Your task to perform on an android device: Open eBay Image 0: 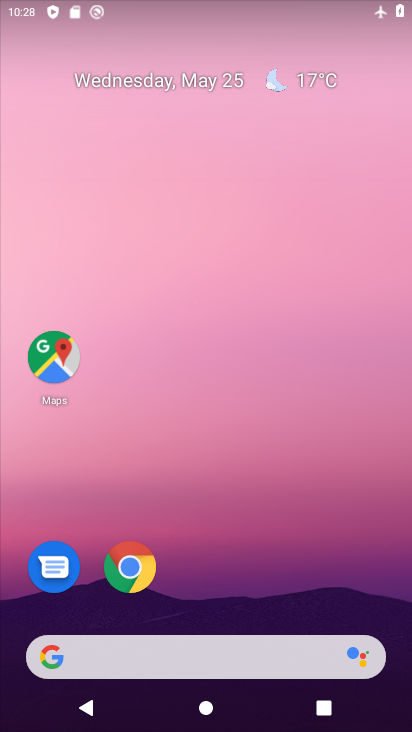
Step 0: drag from (348, 610) to (273, 74)
Your task to perform on an android device: Open eBay Image 1: 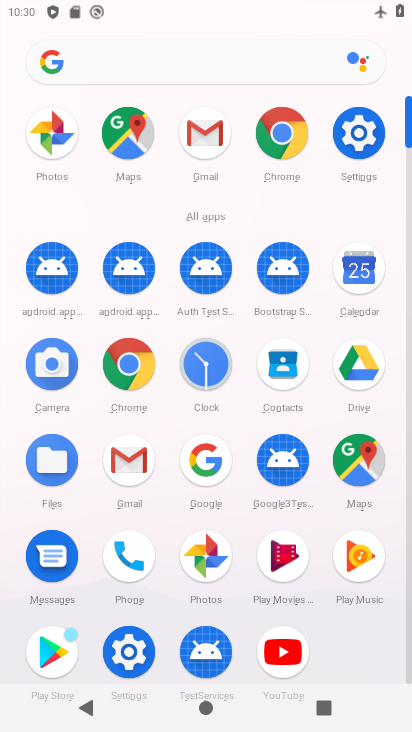
Step 1: click (219, 481)
Your task to perform on an android device: Open eBay Image 2: 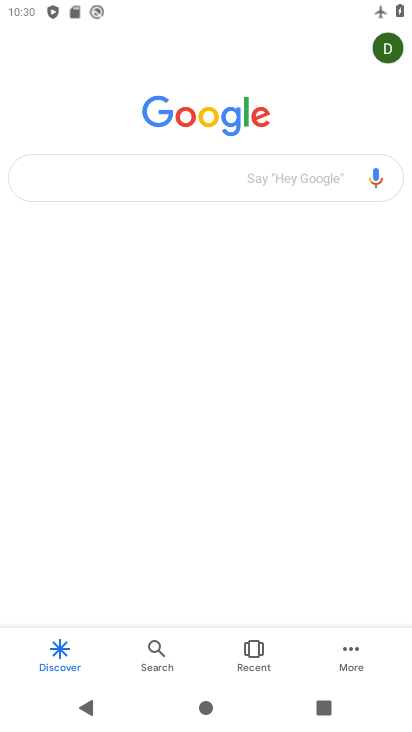
Step 2: click (157, 157)
Your task to perform on an android device: Open eBay Image 3: 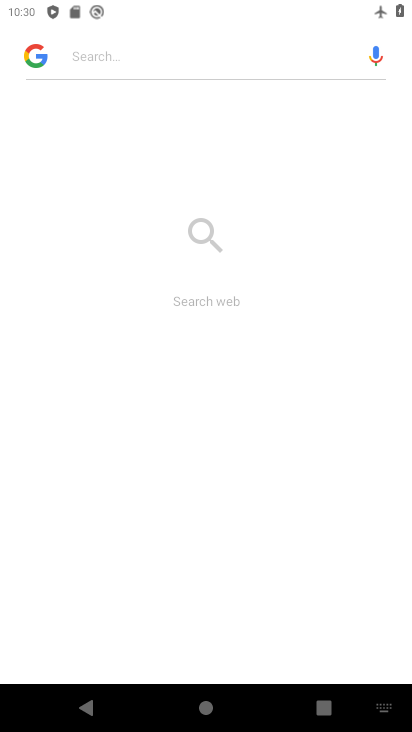
Step 3: type "ebay"
Your task to perform on an android device: Open eBay Image 4: 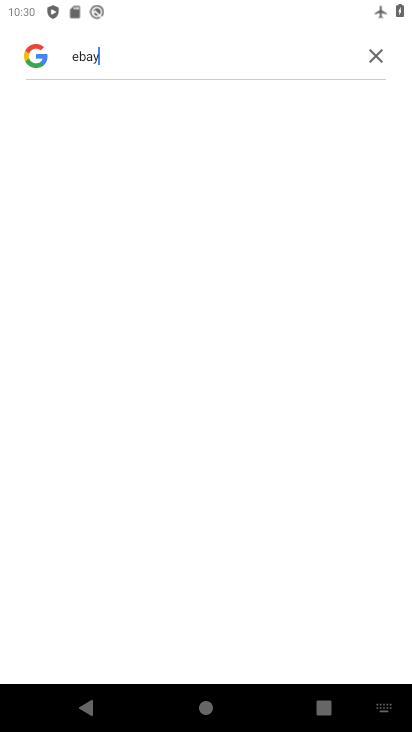
Step 4: task complete